Your task to perform on an android device: show emergency info Image 0: 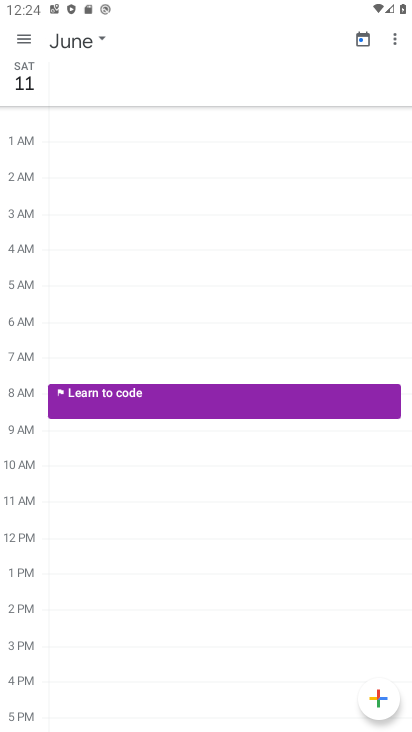
Step 0: press home button
Your task to perform on an android device: show emergency info Image 1: 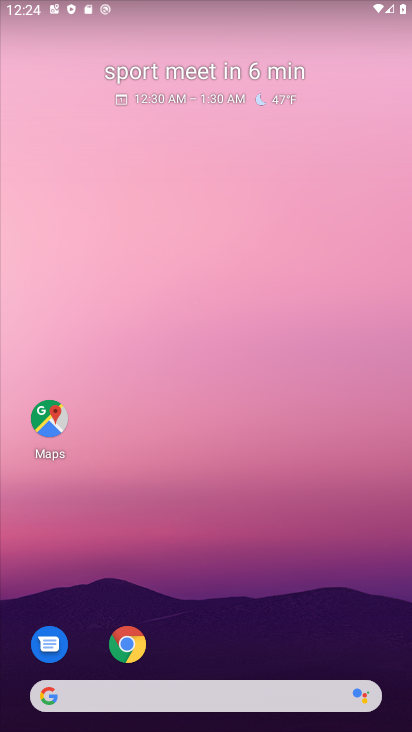
Step 1: drag from (5, 571) to (152, 78)
Your task to perform on an android device: show emergency info Image 2: 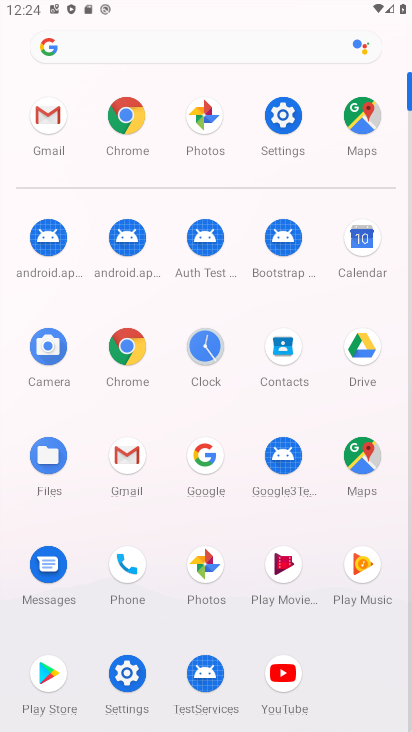
Step 2: click (278, 112)
Your task to perform on an android device: show emergency info Image 3: 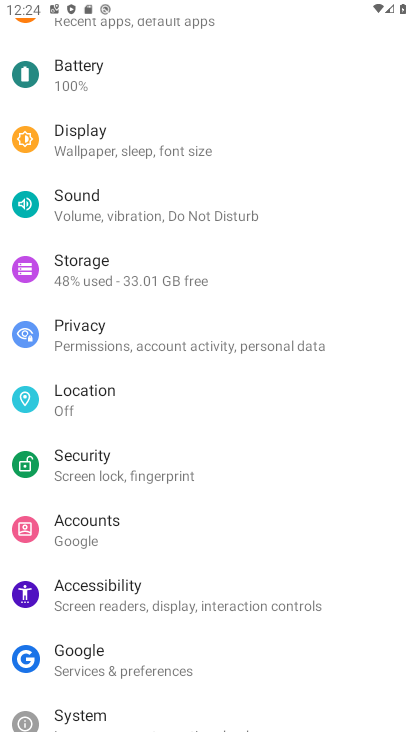
Step 3: drag from (177, 689) to (248, 100)
Your task to perform on an android device: show emergency info Image 4: 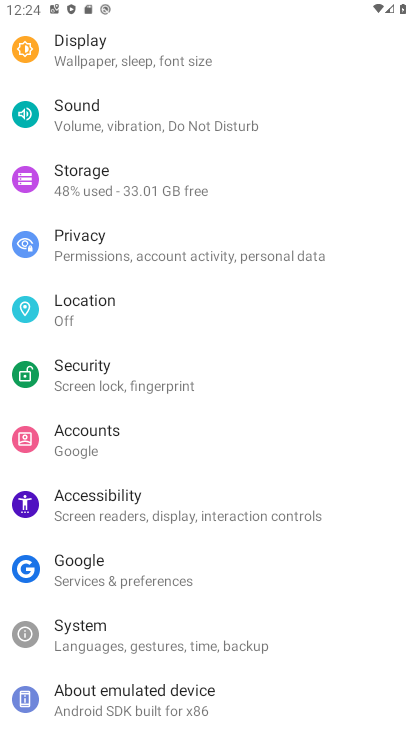
Step 4: drag from (14, 724) to (254, 227)
Your task to perform on an android device: show emergency info Image 5: 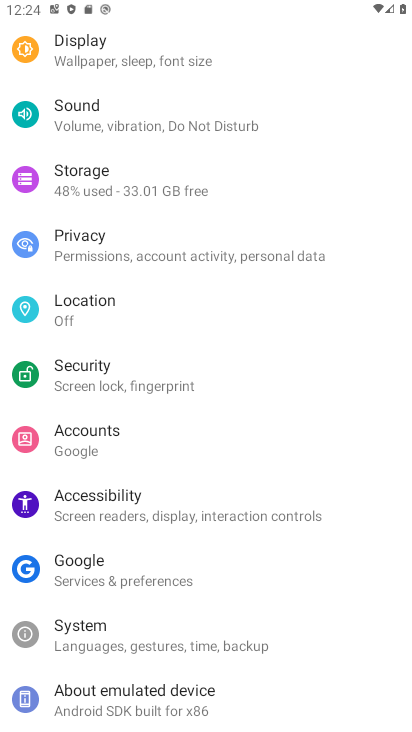
Step 5: click (240, 697)
Your task to perform on an android device: show emergency info Image 6: 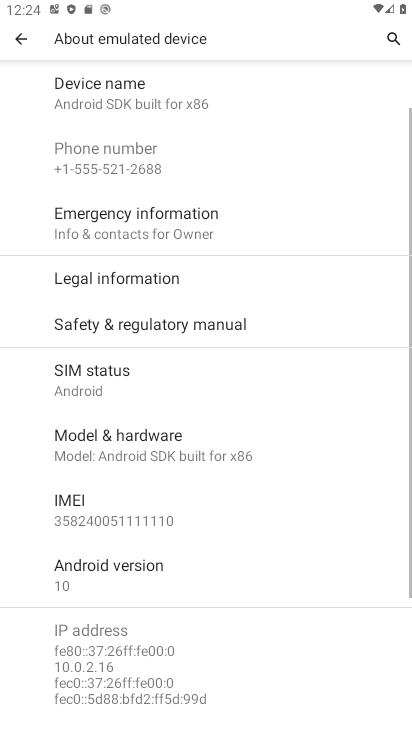
Step 6: click (137, 227)
Your task to perform on an android device: show emergency info Image 7: 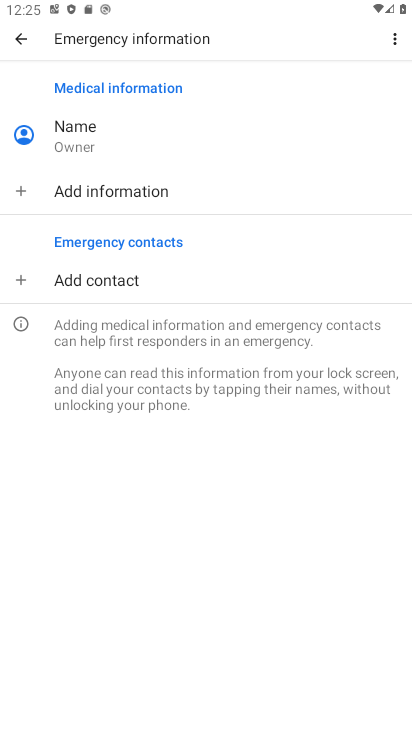
Step 7: task complete